Your task to perform on an android device: toggle notifications settings in the gmail app Image 0: 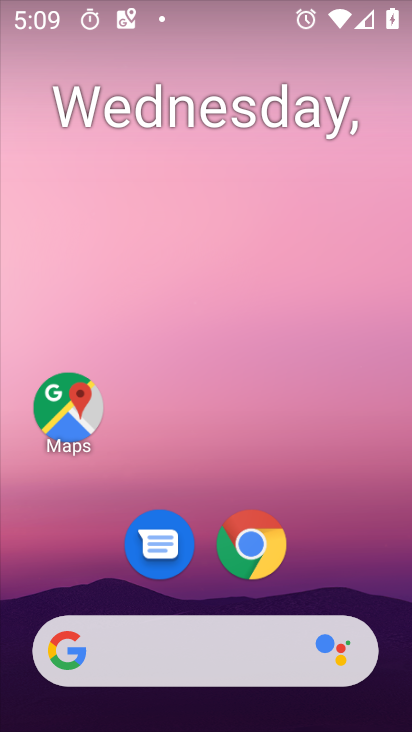
Step 0: drag from (267, 521) to (265, 208)
Your task to perform on an android device: toggle notifications settings in the gmail app Image 1: 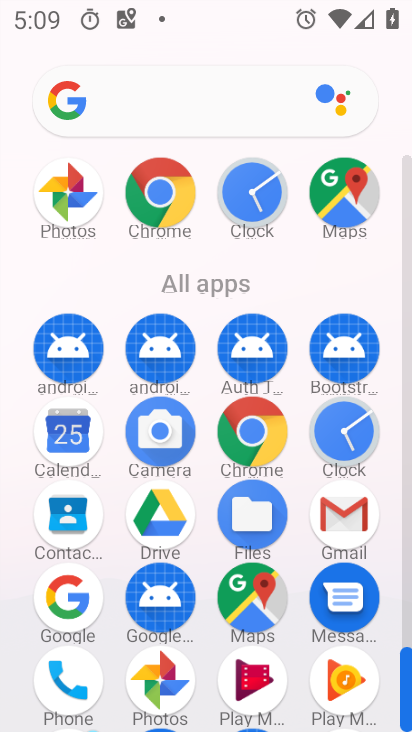
Step 1: click (331, 523)
Your task to perform on an android device: toggle notifications settings in the gmail app Image 2: 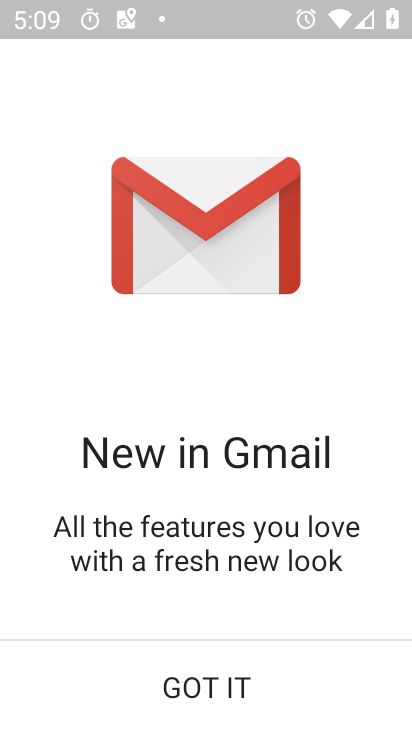
Step 2: click (218, 688)
Your task to perform on an android device: toggle notifications settings in the gmail app Image 3: 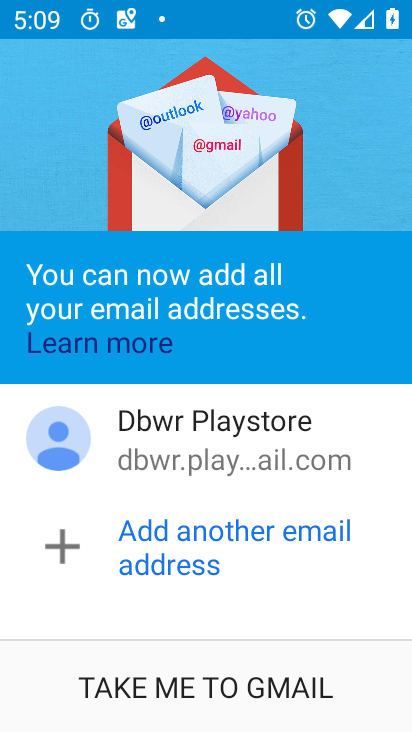
Step 3: click (306, 682)
Your task to perform on an android device: toggle notifications settings in the gmail app Image 4: 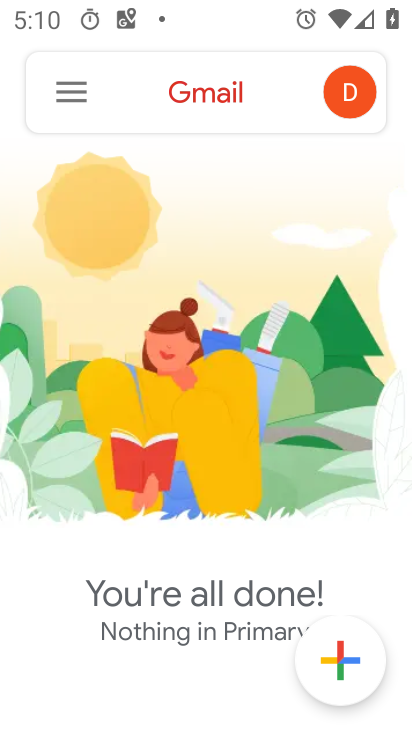
Step 4: click (75, 96)
Your task to perform on an android device: toggle notifications settings in the gmail app Image 5: 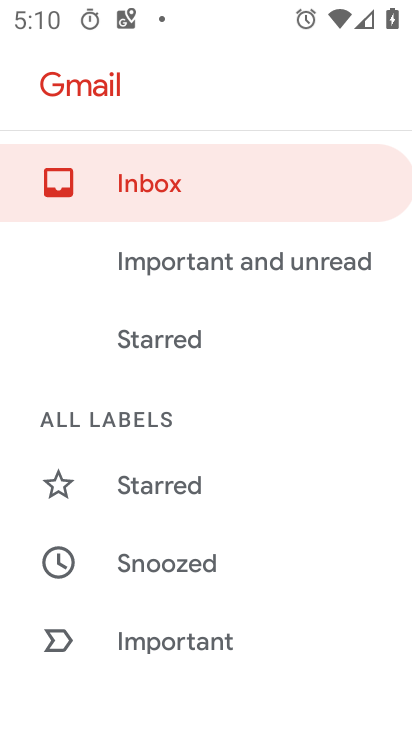
Step 5: drag from (165, 637) to (146, 306)
Your task to perform on an android device: toggle notifications settings in the gmail app Image 6: 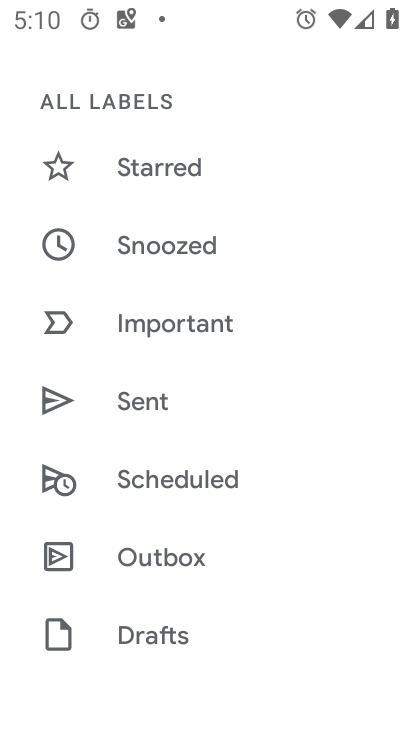
Step 6: drag from (154, 618) to (153, 352)
Your task to perform on an android device: toggle notifications settings in the gmail app Image 7: 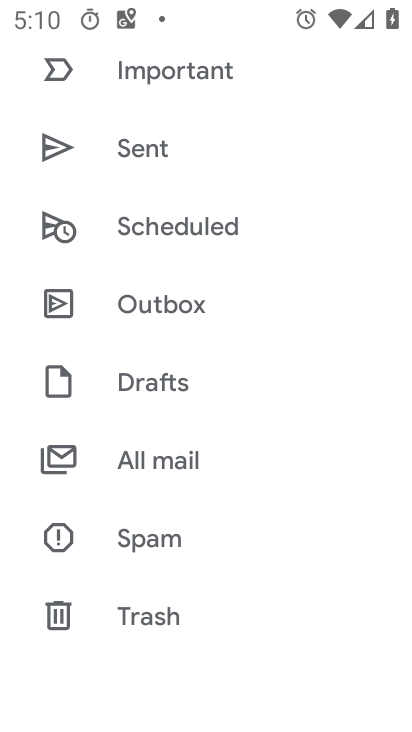
Step 7: drag from (180, 625) to (175, 357)
Your task to perform on an android device: toggle notifications settings in the gmail app Image 8: 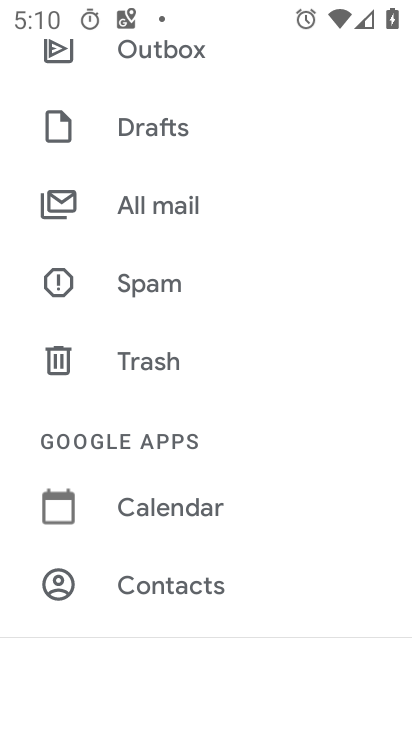
Step 8: drag from (178, 573) to (193, 254)
Your task to perform on an android device: toggle notifications settings in the gmail app Image 9: 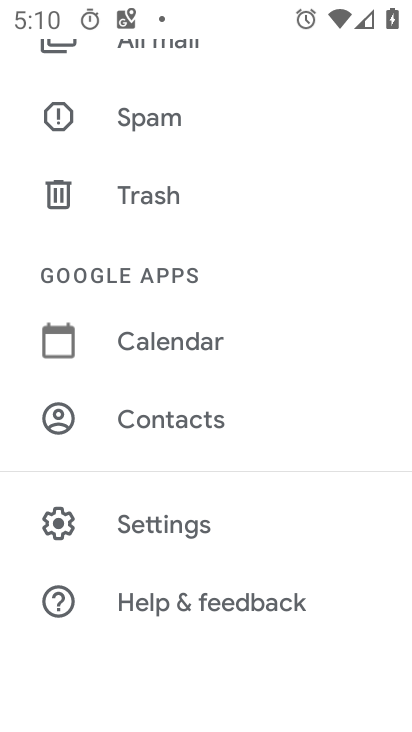
Step 9: click (174, 518)
Your task to perform on an android device: toggle notifications settings in the gmail app Image 10: 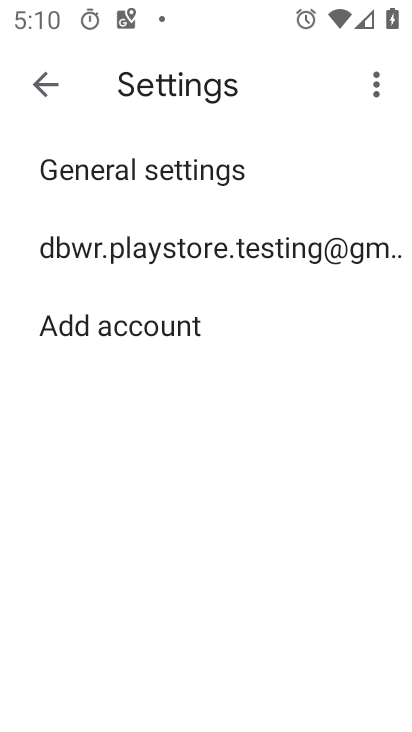
Step 10: click (154, 157)
Your task to perform on an android device: toggle notifications settings in the gmail app Image 11: 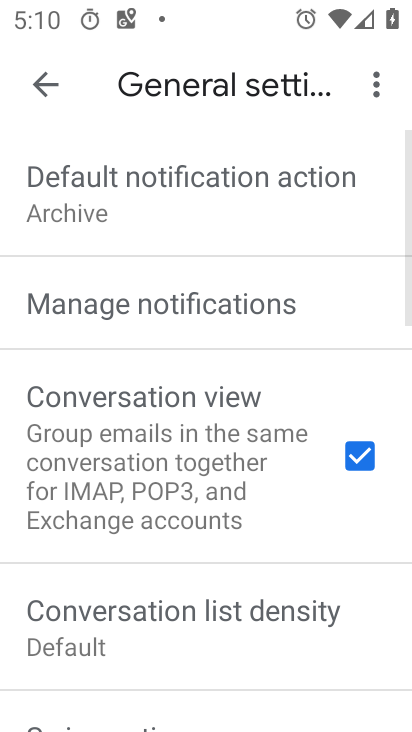
Step 11: click (170, 322)
Your task to perform on an android device: toggle notifications settings in the gmail app Image 12: 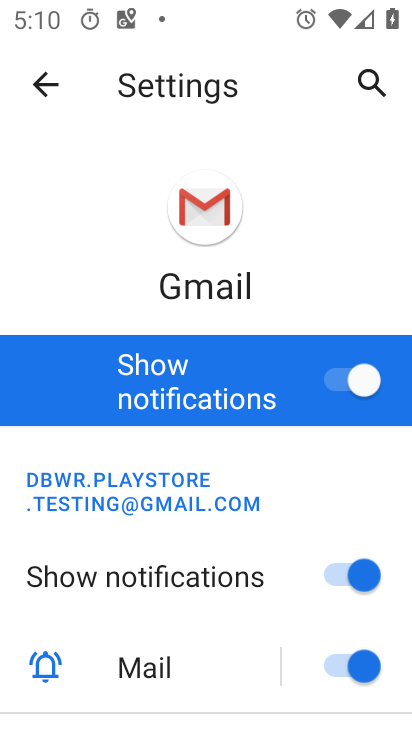
Step 12: click (343, 369)
Your task to perform on an android device: toggle notifications settings in the gmail app Image 13: 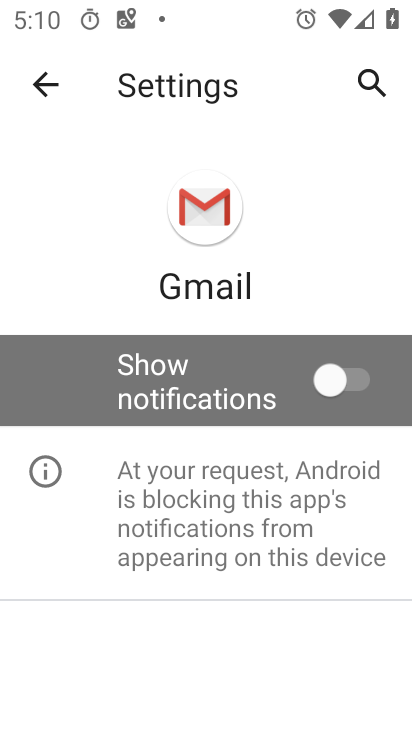
Step 13: task complete